Your task to perform on an android device: turn notification dots off Image 0: 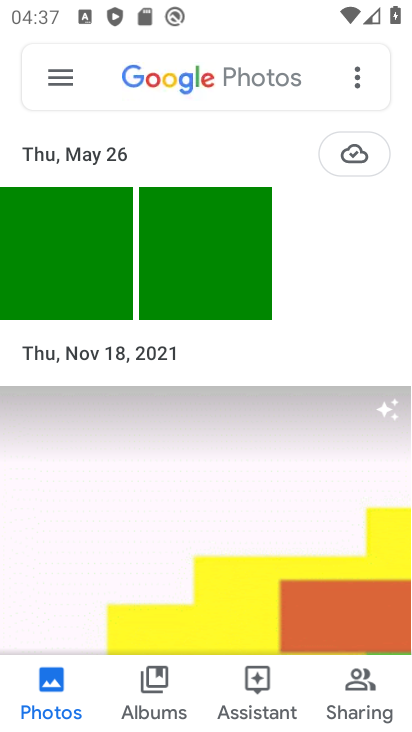
Step 0: press home button
Your task to perform on an android device: turn notification dots off Image 1: 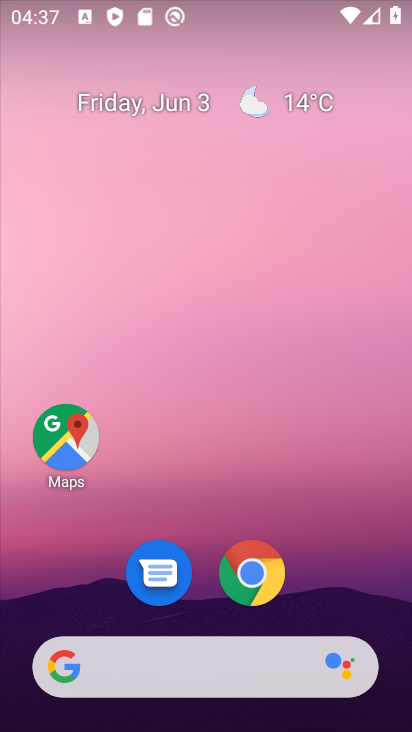
Step 1: drag from (324, 586) to (347, 60)
Your task to perform on an android device: turn notification dots off Image 2: 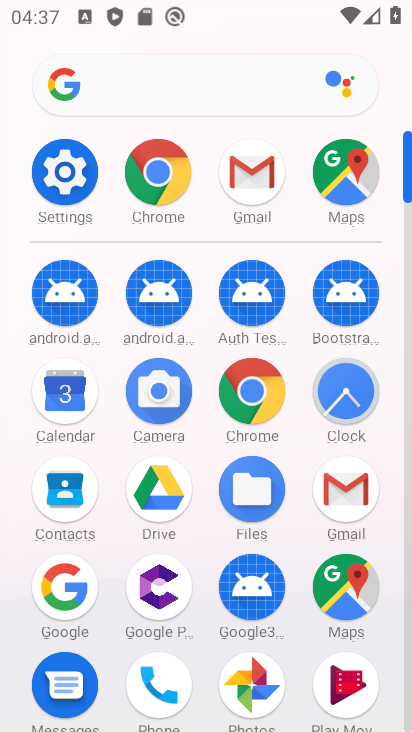
Step 2: click (63, 181)
Your task to perform on an android device: turn notification dots off Image 3: 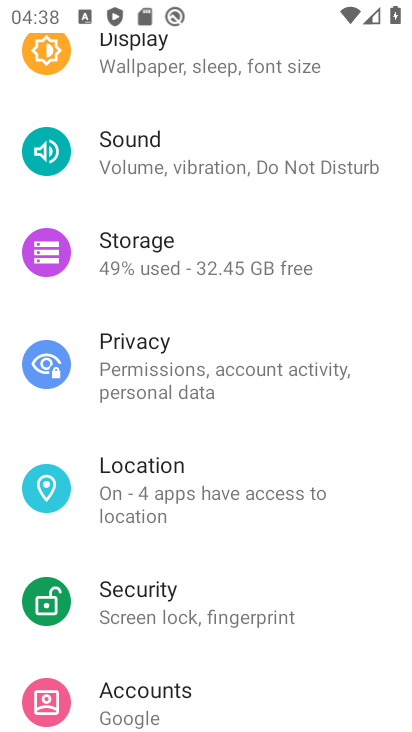
Step 3: drag from (257, 329) to (209, 725)
Your task to perform on an android device: turn notification dots off Image 4: 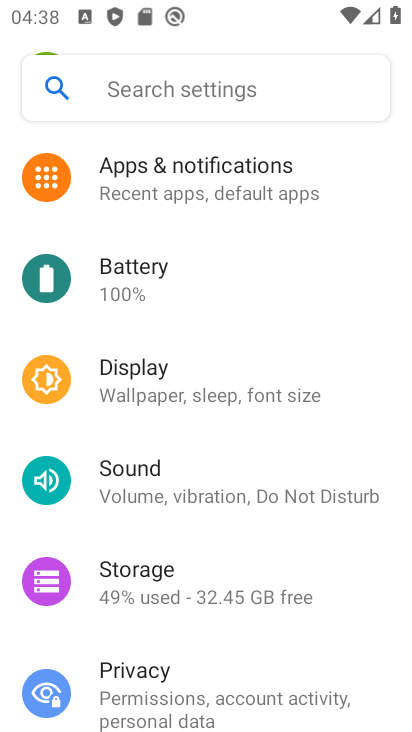
Step 4: click (232, 195)
Your task to perform on an android device: turn notification dots off Image 5: 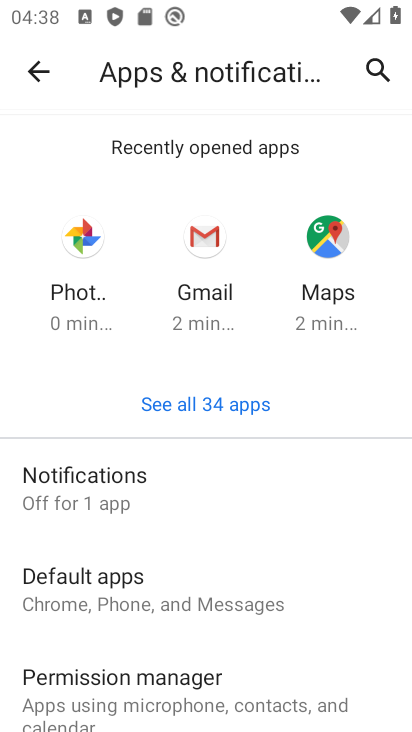
Step 5: drag from (301, 689) to (287, 461)
Your task to perform on an android device: turn notification dots off Image 6: 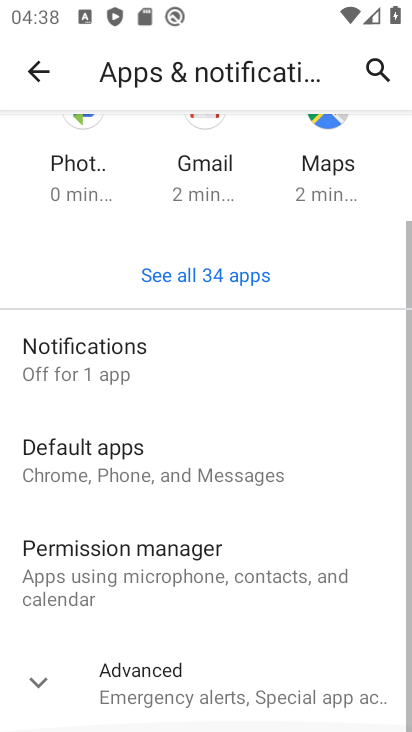
Step 6: click (138, 479)
Your task to perform on an android device: turn notification dots off Image 7: 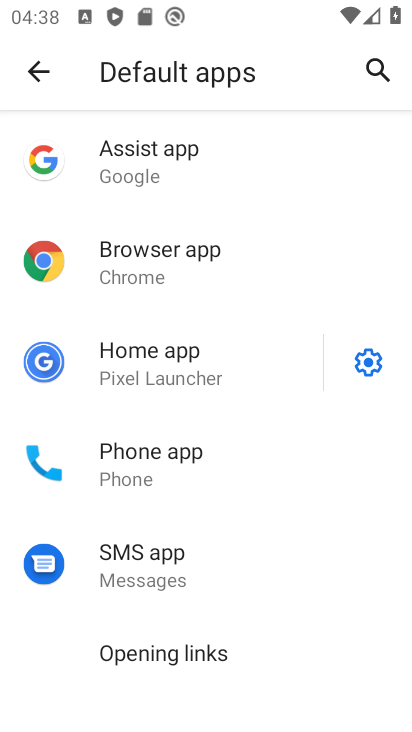
Step 7: press back button
Your task to perform on an android device: turn notification dots off Image 8: 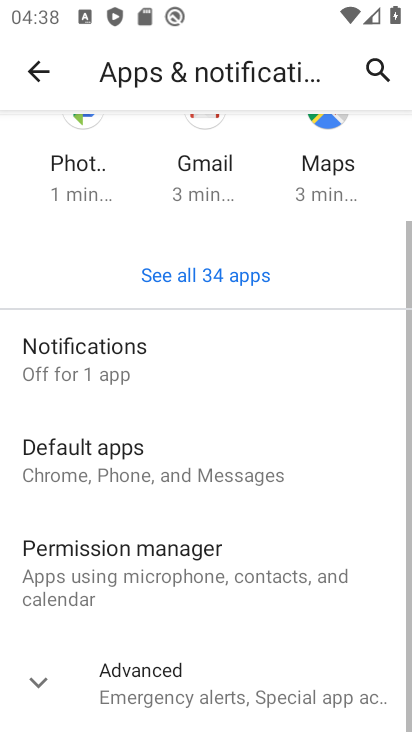
Step 8: click (187, 369)
Your task to perform on an android device: turn notification dots off Image 9: 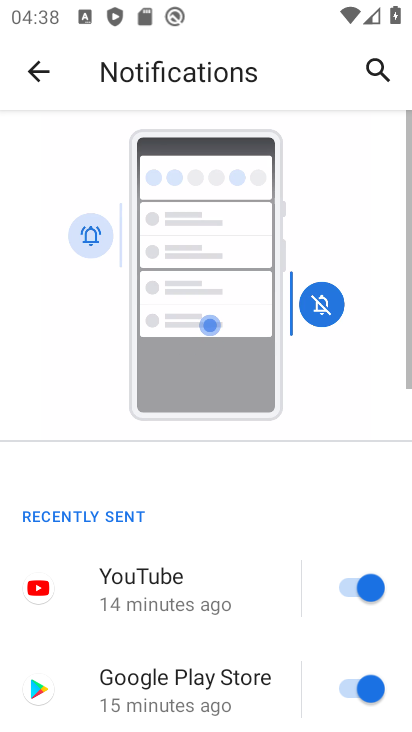
Step 9: drag from (212, 706) to (277, 142)
Your task to perform on an android device: turn notification dots off Image 10: 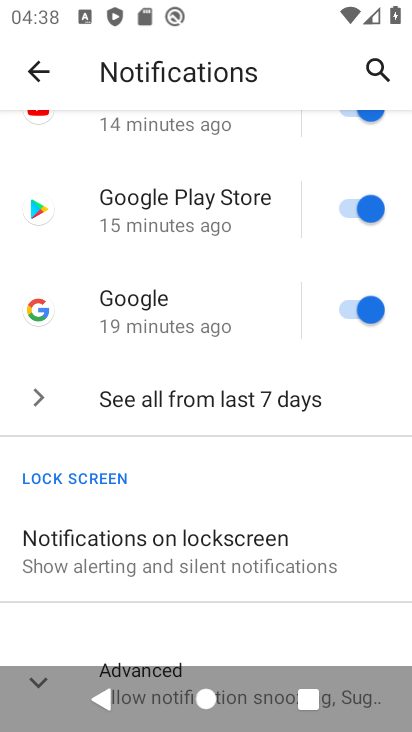
Step 10: click (265, 559)
Your task to perform on an android device: turn notification dots off Image 11: 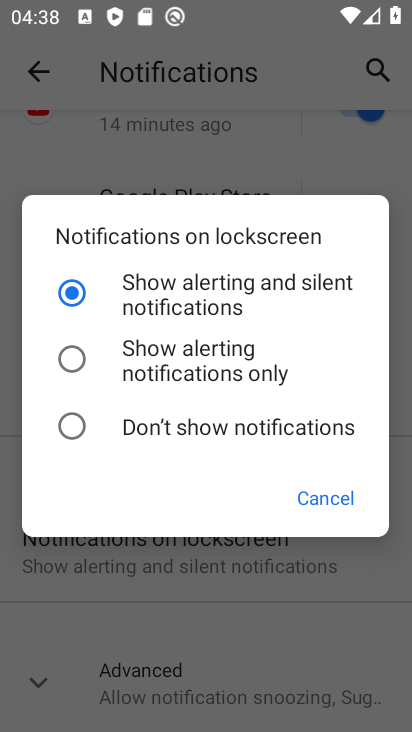
Step 11: click (338, 491)
Your task to perform on an android device: turn notification dots off Image 12: 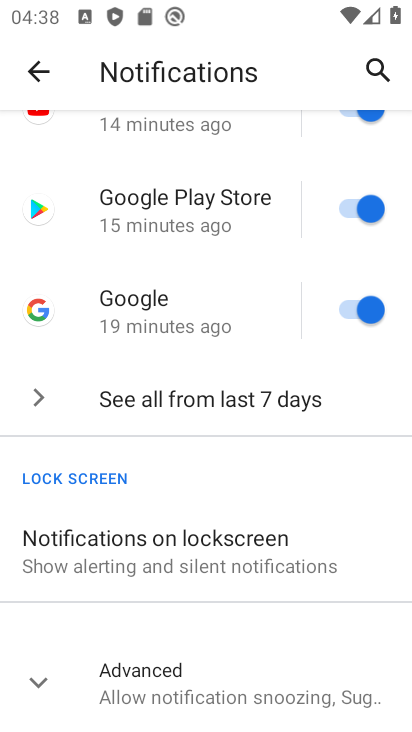
Step 12: drag from (261, 644) to (297, 265)
Your task to perform on an android device: turn notification dots off Image 13: 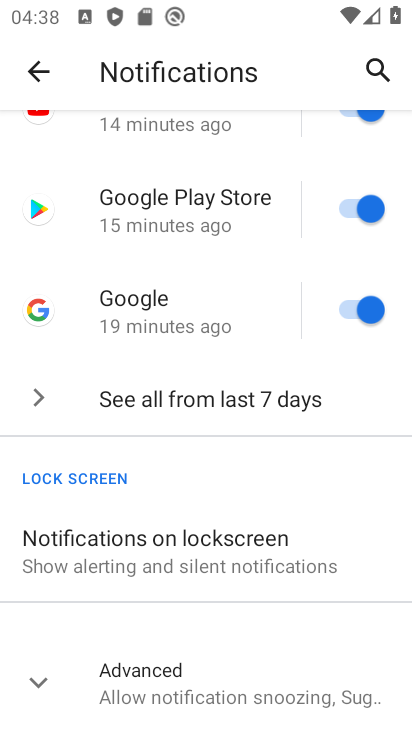
Step 13: click (206, 697)
Your task to perform on an android device: turn notification dots off Image 14: 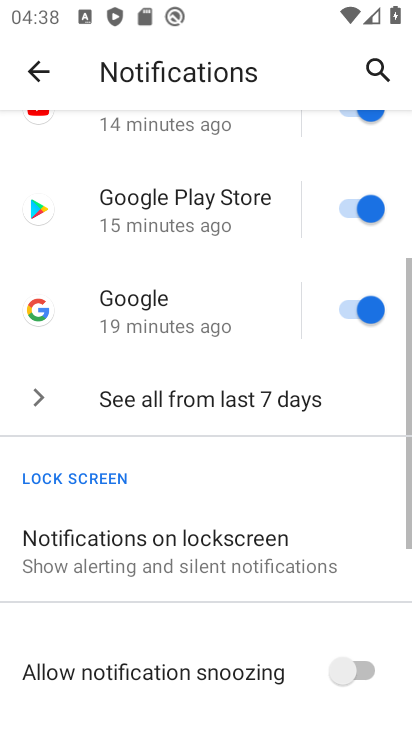
Step 14: drag from (217, 685) to (263, 92)
Your task to perform on an android device: turn notification dots off Image 15: 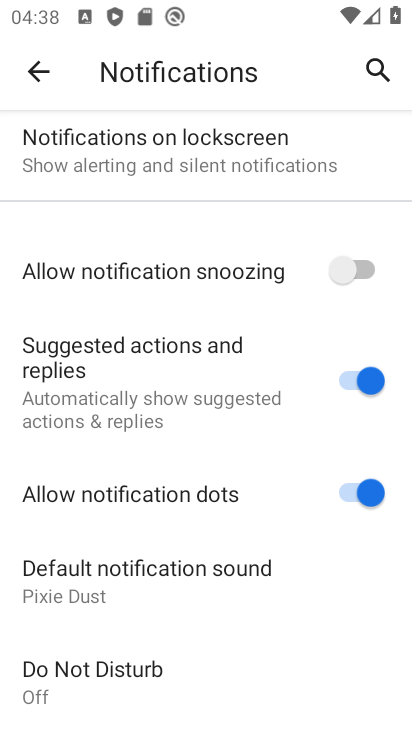
Step 15: click (354, 503)
Your task to perform on an android device: turn notification dots off Image 16: 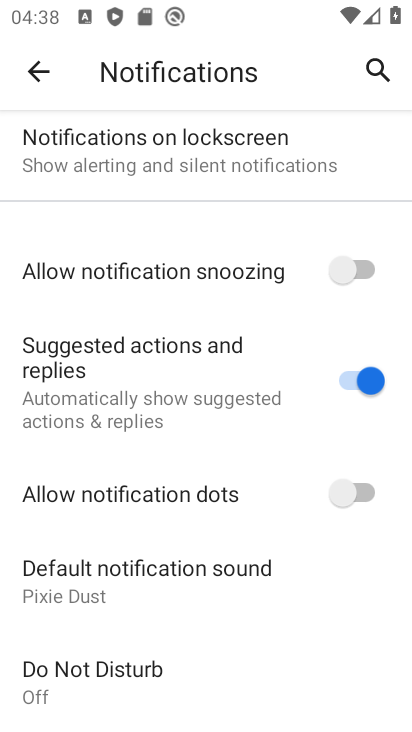
Step 16: task complete